Your task to perform on an android device: check out phone information Image 0: 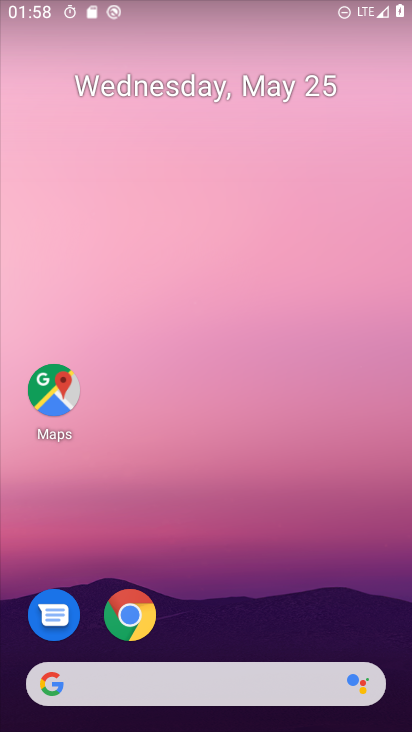
Step 0: press home button
Your task to perform on an android device: check out phone information Image 1: 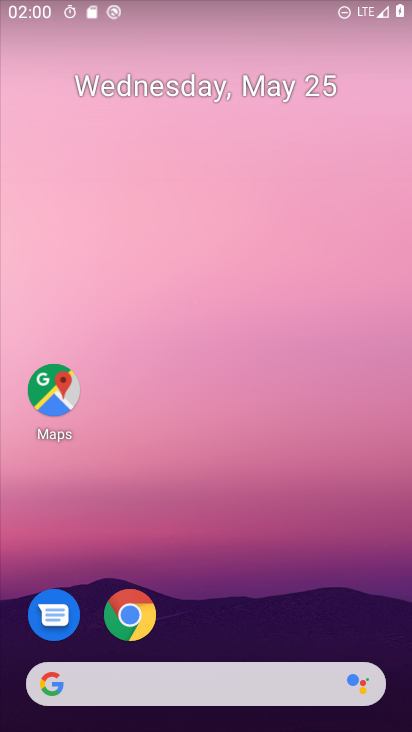
Step 1: drag from (205, 703) to (246, 276)
Your task to perform on an android device: check out phone information Image 2: 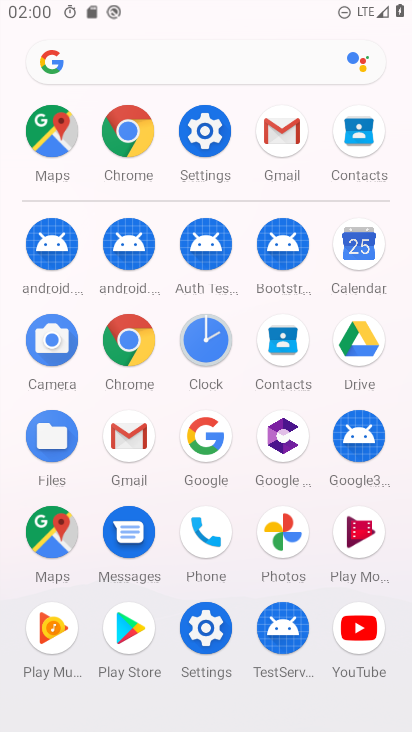
Step 2: click (200, 150)
Your task to perform on an android device: check out phone information Image 3: 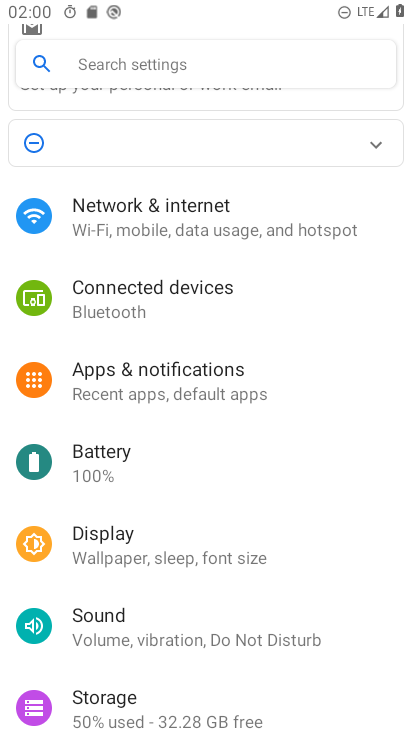
Step 3: click (153, 58)
Your task to perform on an android device: check out phone information Image 4: 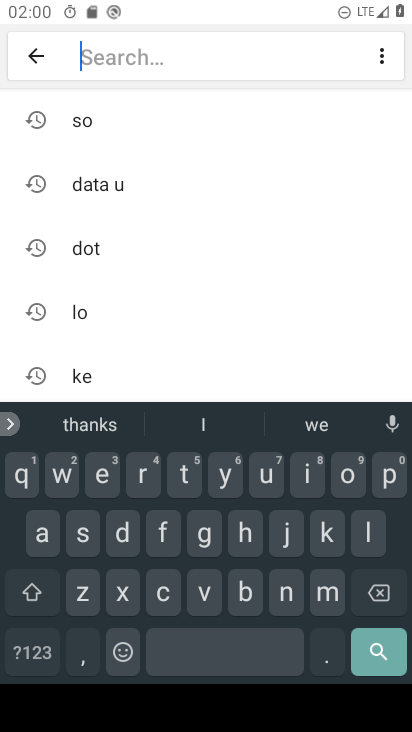
Step 4: click (50, 531)
Your task to perform on an android device: check out phone information Image 5: 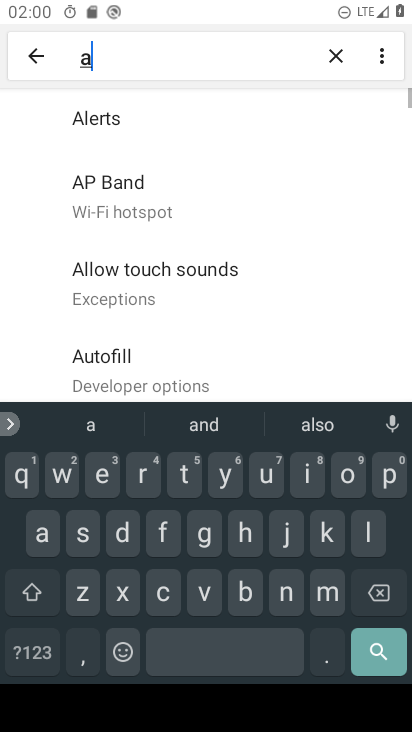
Step 5: click (249, 596)
Your task to perform on an android device: check out phone information Image 6: 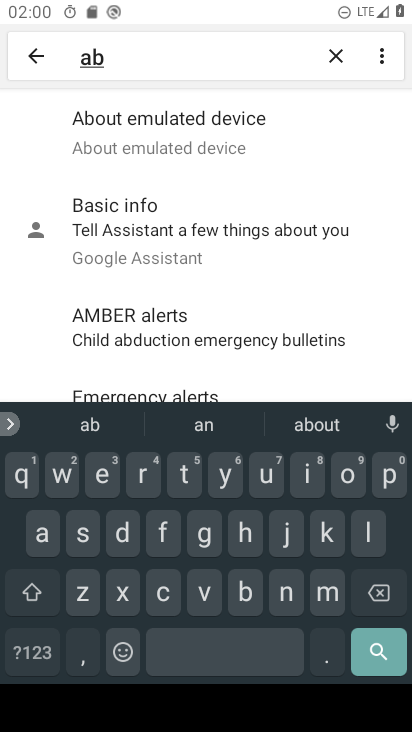
Step 6: click (188, 124)
Your task to perform on an android device: check out phone information Image 7: 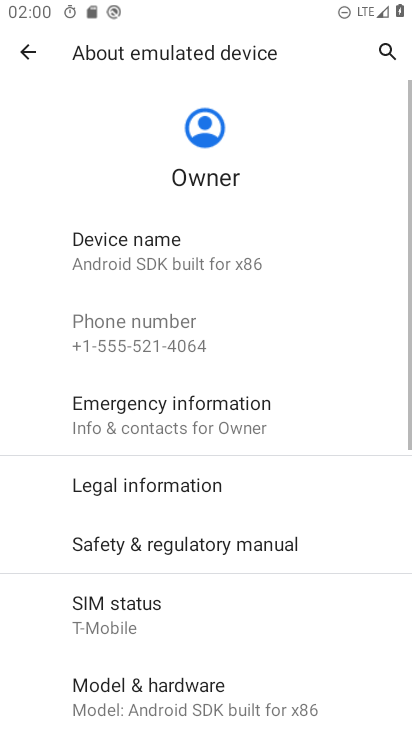
Step 7: task complete